Your task to perform on an android device: What's on my calendar today? Image 0: 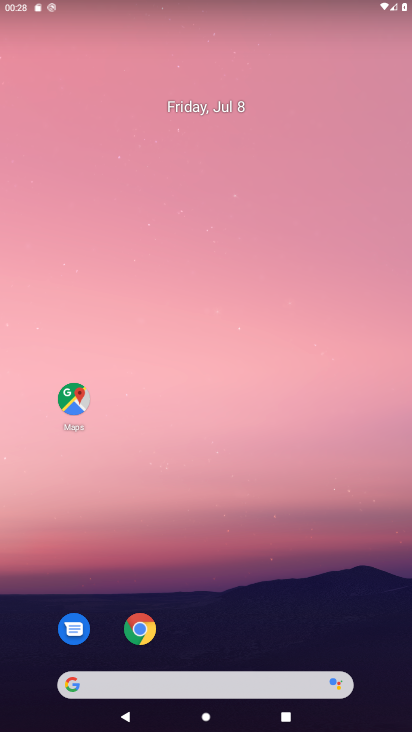
Step 0: drag from (260, 606) to (251, 117)
Your task to perform on an android device: What's on my calendar today? Image 1: 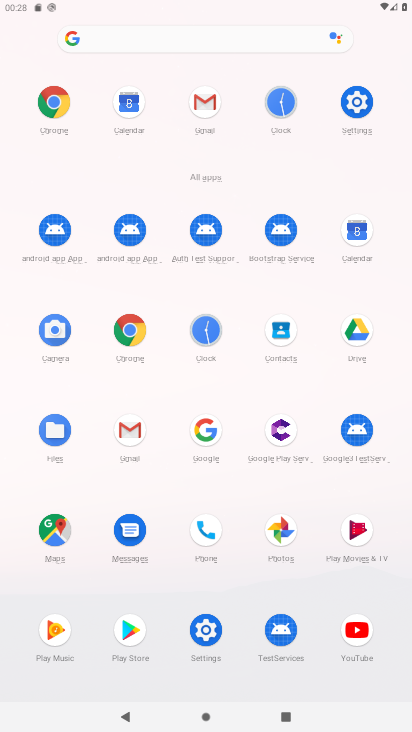
Step 1: click (130, 102)
Your task to perform on an android device: What's on my calendar today? Image 2: 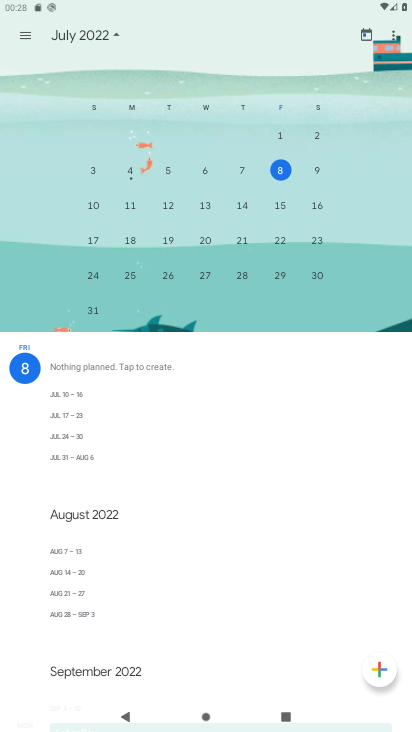
Step 2: click (282, 164)
Your task to perform on an android device: What's on my calendar today? Image 3: 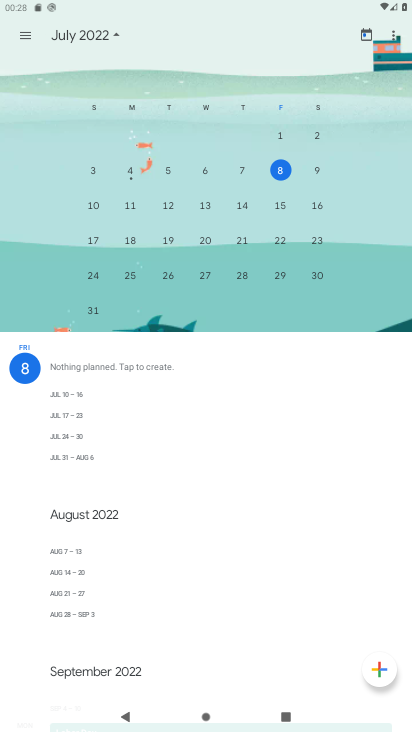
Step 3: task complete